Your task to perform on an android device: Open display settings Image 0: 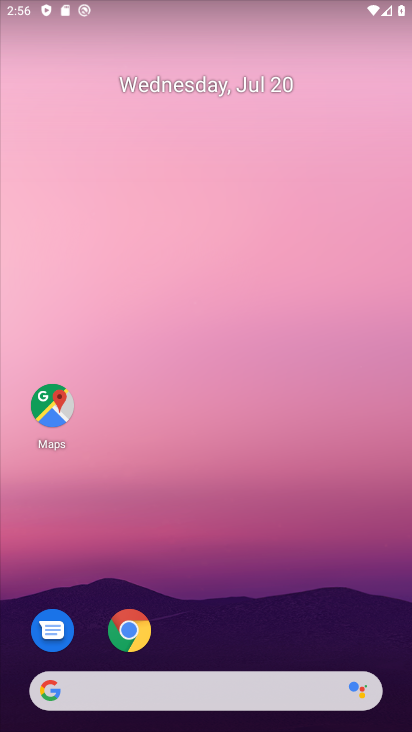
Step 0: drag from (233, 575) to (224, 14)
Your task to perform on an android device: Open display settings Image 1: 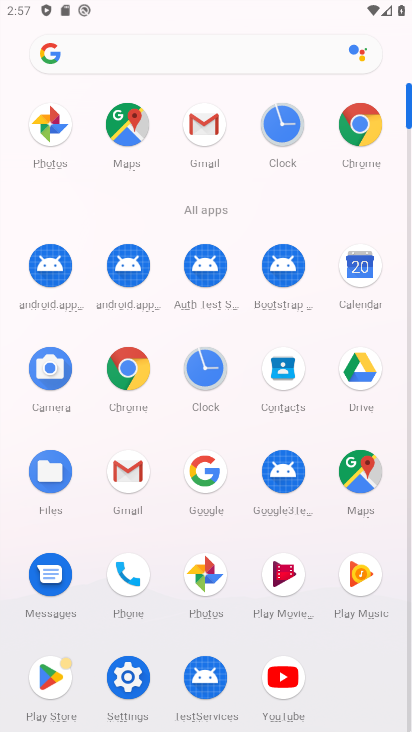
Step 1: click (128, 695)
Your task to perform on an android device: Open display settings Image 2: 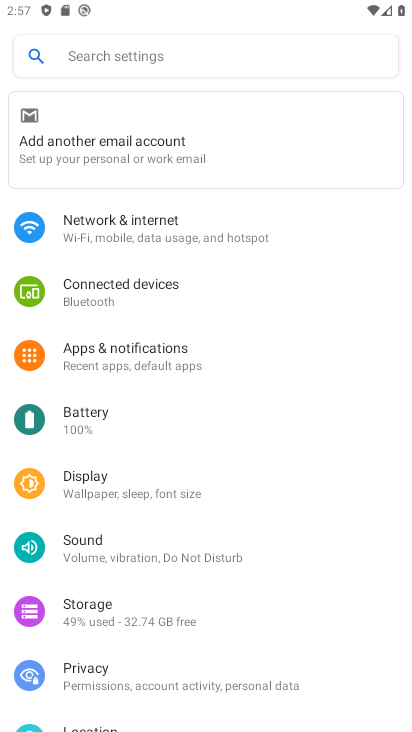
Step 2: click (84, 482)
Your task to perform on an android device: Open display settings Image 3: 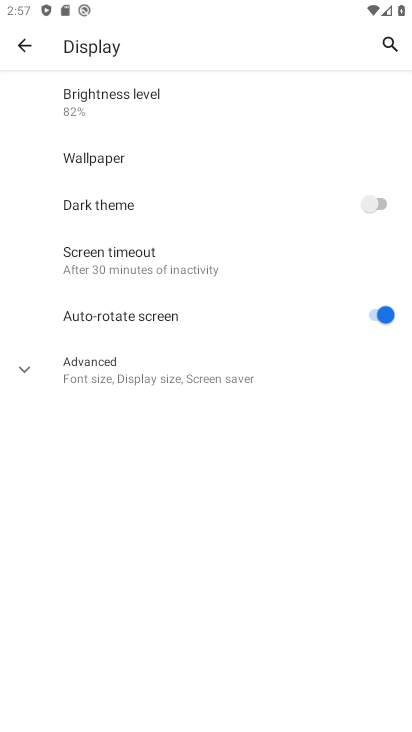
Step 3: task complete